Your task to perform on an android device: turn on notifications settings in the gmail app Image 0: 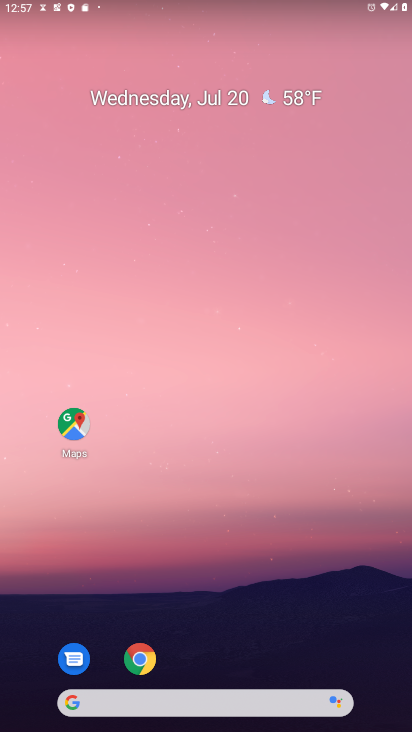
Step 0: press home button
Your task to perform on an android device: turn on notifications settings in the gmail app Image 1: 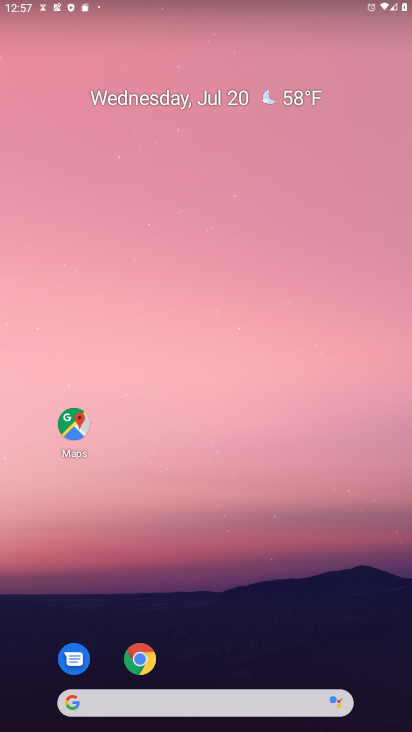
Step 1: drag from (239, 528) to (273, 44)
Your task to perform on an android device: turn on notifications settings in the gmail app Image 2: 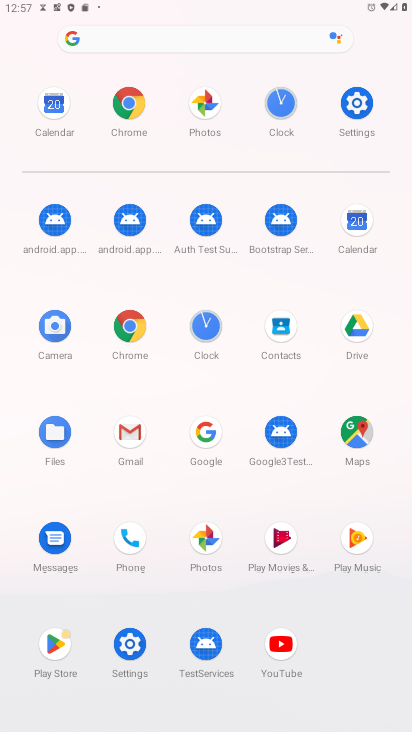
Step 2: click (128, 429)
Your task to perform on an android device: turn on notifications settings in the gmail app Image 3: 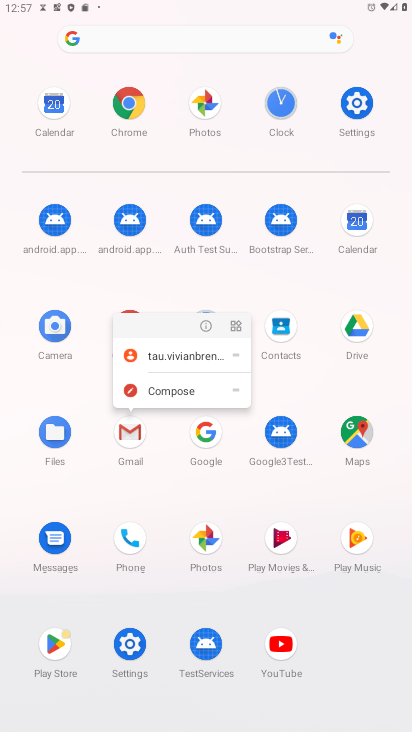
Step 3: click (126, 428)
Your task to perform on an android device: turn on notifications settings in the gmail app Image 4: 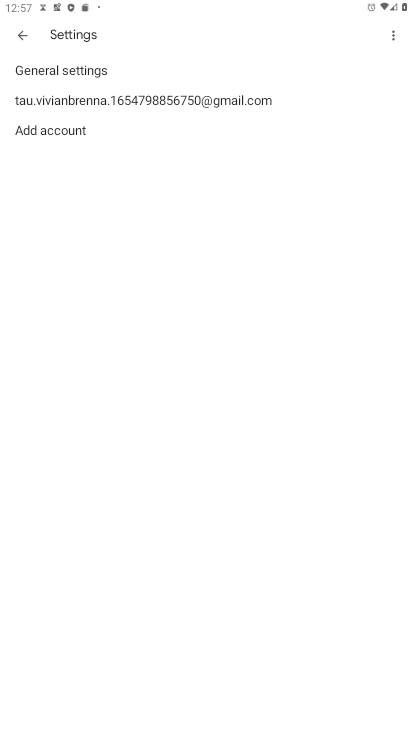
Step 4: click (120, 59)
Your task to perform on an android device: turn on notifications settings in the gmail app Image 5: 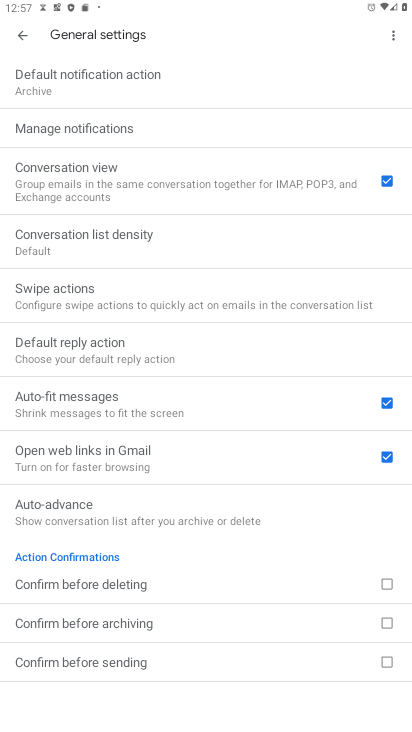
Step 5: click (135, 124)
Your task to perform on an android device: turn on notifications settings in the gmail app Image 6: 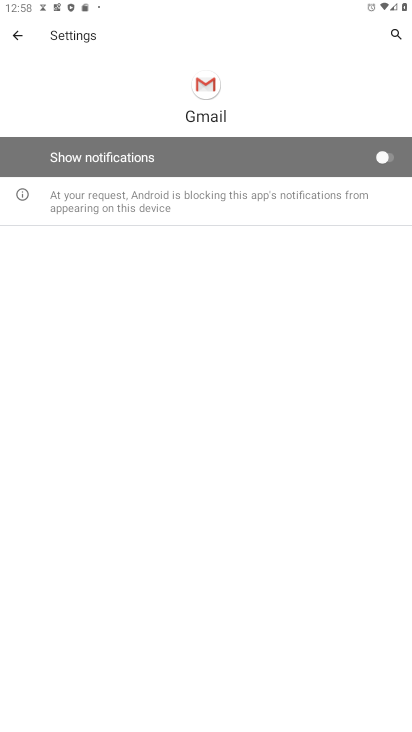
Step 6: click (387, 155)
Your task to perform on an android device: turn on notifications settings in the gmail app Image 7: 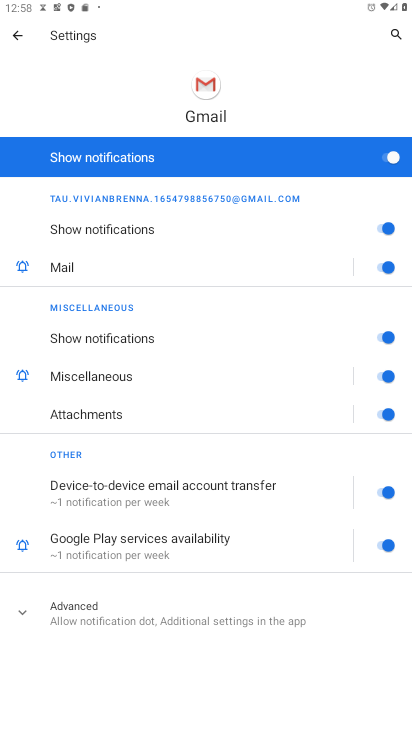
Step 7: task complete